Your task to perform on an android device: Turn off the flashlight Image 0: 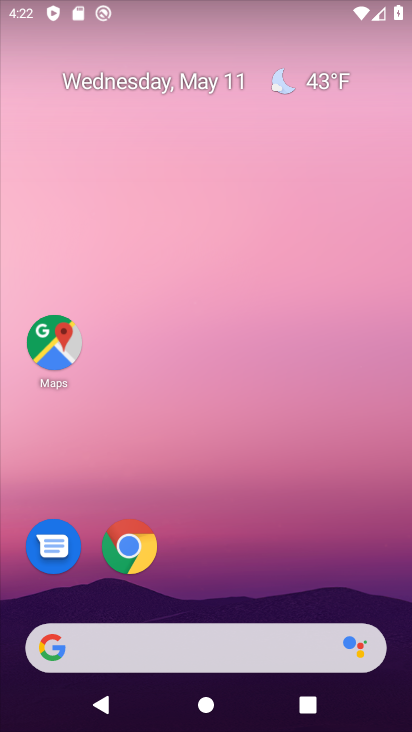
Step 0: drag from (232, 4) to (273, 429)
Your task to perform on an android device: Turn off the flashlight Image 1: 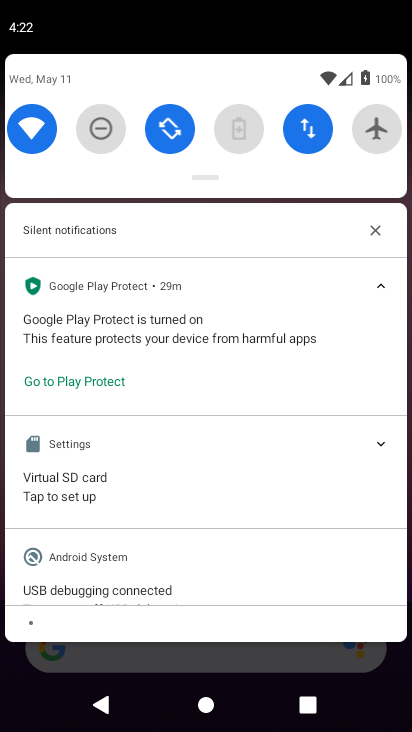
Step 1: drag from (244, 158) to (279, 505)
Your task to perform on an android device: Turn off the flashlight Image 2: 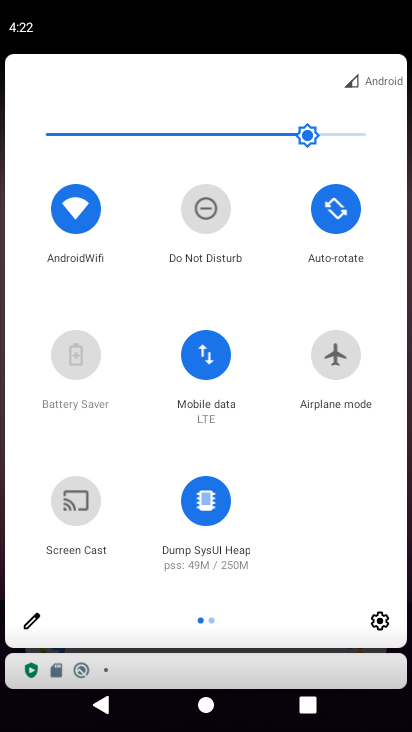
Step 2: drag from (336, 518) to (10, 505)
Your task to perform on an android device: Turn off the flashlight Image 3: 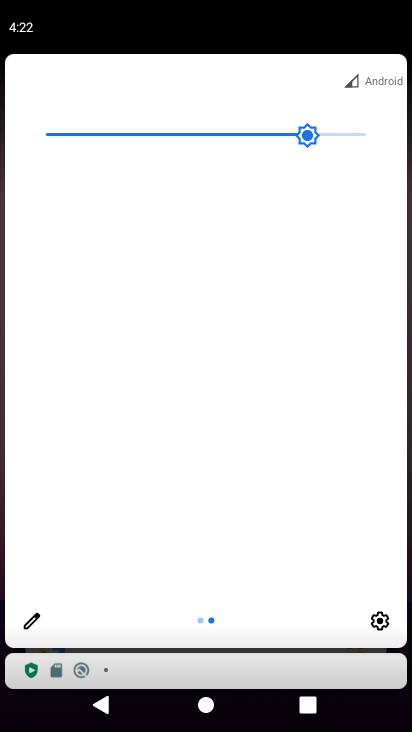
Step 3: click (28, 622)
Your task to perform on an android device: Turn off the flashlight Image 4: 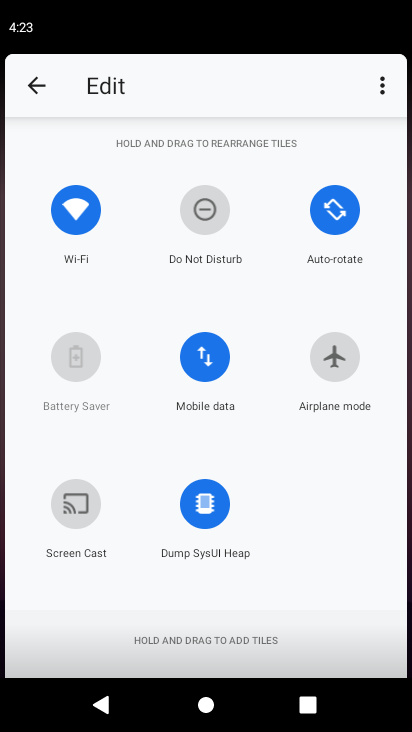
Step 4: task complete